Your task to perform on an android device: turn off airplane mode Image 0: 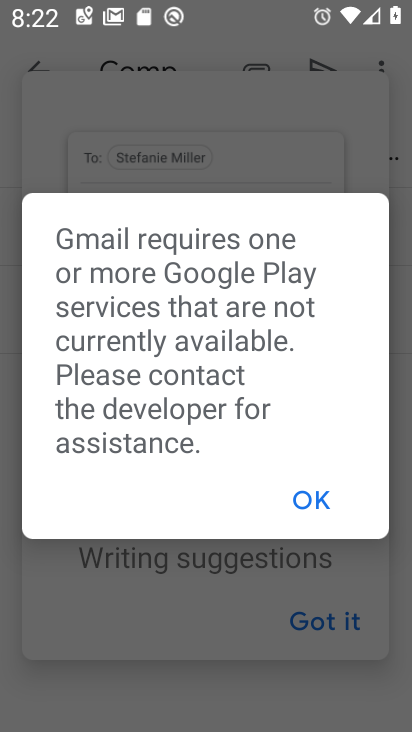
Step 0: press home button
Your task to perform on an android device: turn off airplane mode Image 1: 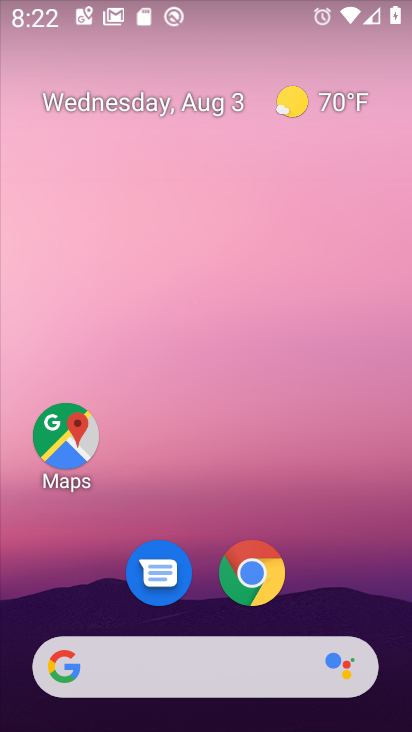
Step 1: drag from (328, 613) to (318, 2)
Your task to perform on an android device: turn off airplane mode Image 2: 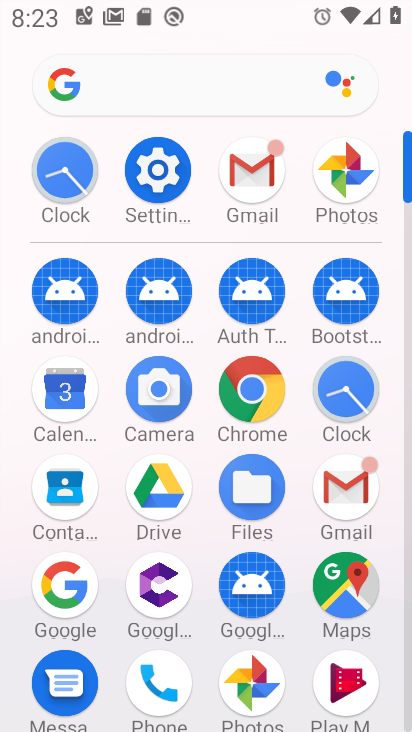
Step 2: click (158, 173)
Your task to perform on an android device: turn off airplane mode Image 3: 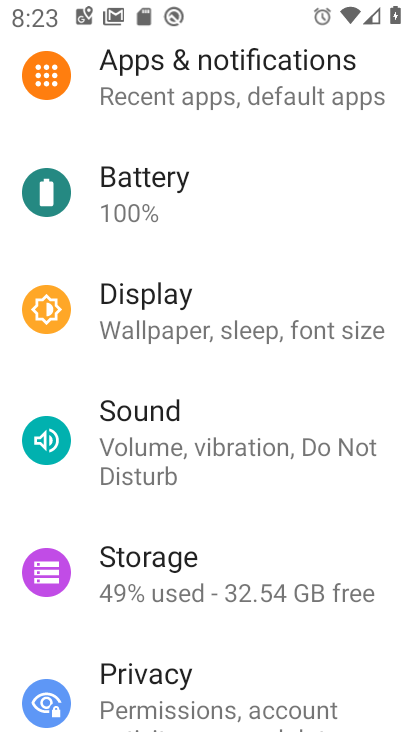
Step 3: drag from (269, 175) to (284, 560)
Your task to perform on an android device: turn off airplane mode Image 4: 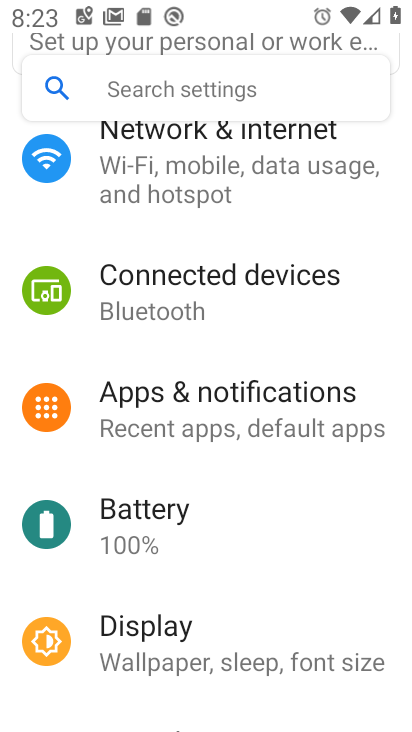
Step 4: click (189, 175)
Your task to perform on an android device: turn off airplane mode Image 5: 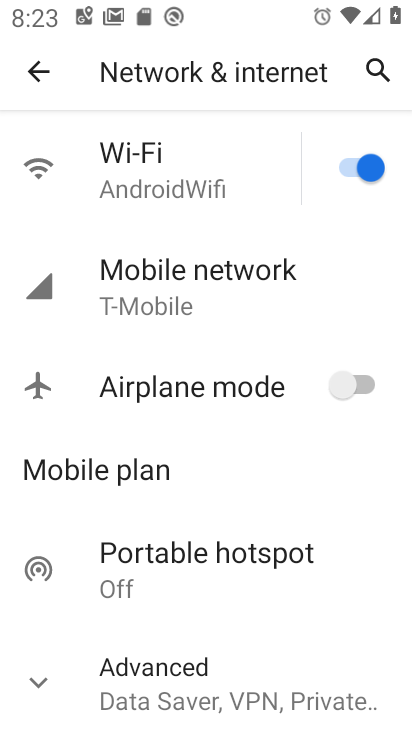
Step 5: task complete